Your task to perform on an android device: turn on airplane mode Image 0: 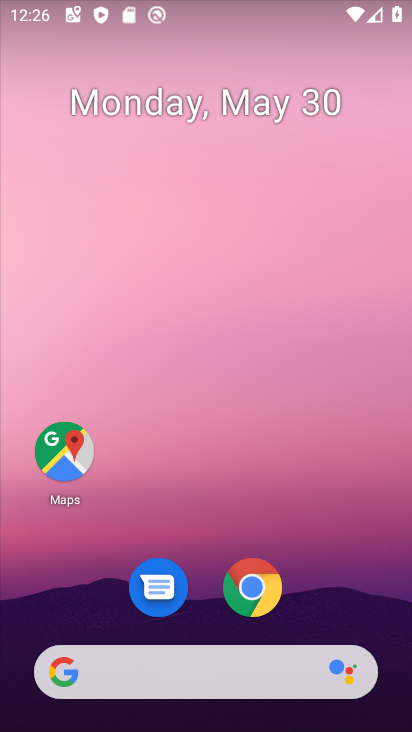
Step 0: drag from (158, 726) to (155, 79)
Your task to perform on an android device: turn on airplane mode Image 1: 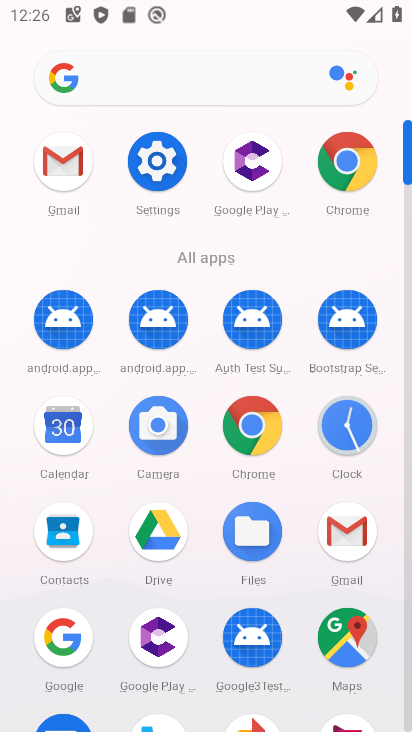
Step 1: drag from (112, 590) to (108, 276)
Your task to perform on an android device: turn on airplane mode Image 2: 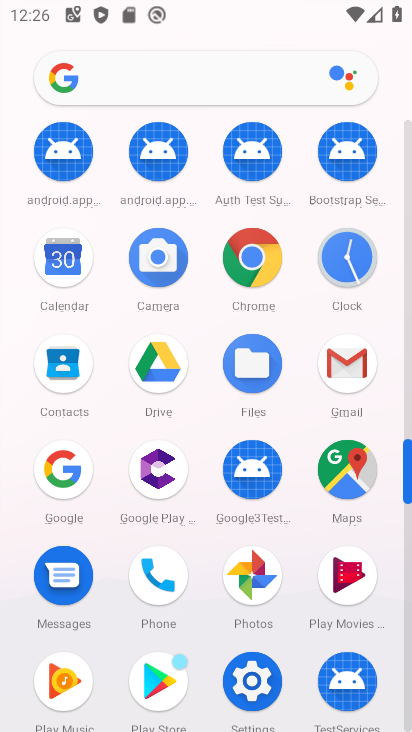
Step 2: click (256, 680)
Your task to perform on an android device: turn on airplane mode Image 3: 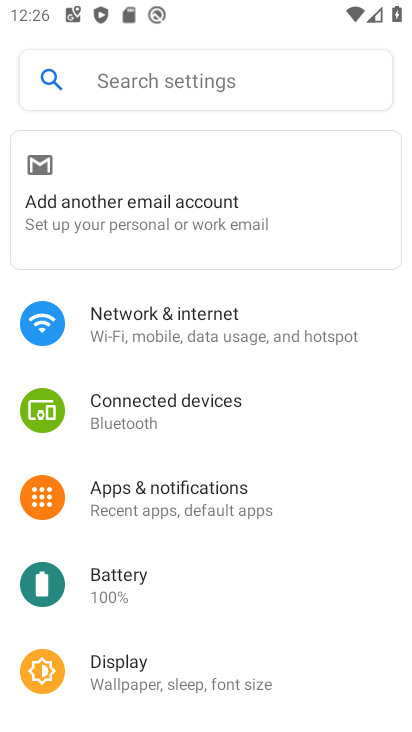
Step 3: click (294, 344)
Your task to perform on an android device: turn on airplane mode Image 4: 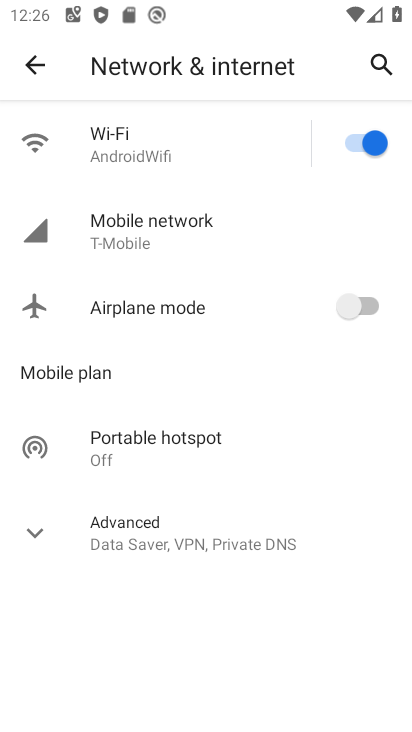
Step 4: click (362, 311)
Your task to perform on an android device: turn on airplane mode Image 5: 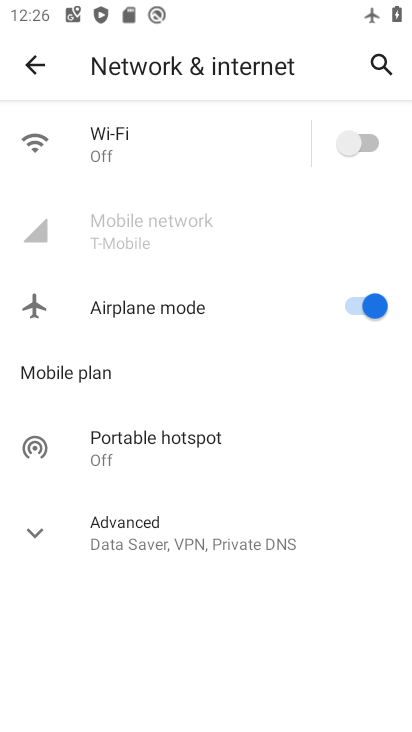
Step 5: task complete